Your task to perform on an android device: change the upload size in google photos Image 0: 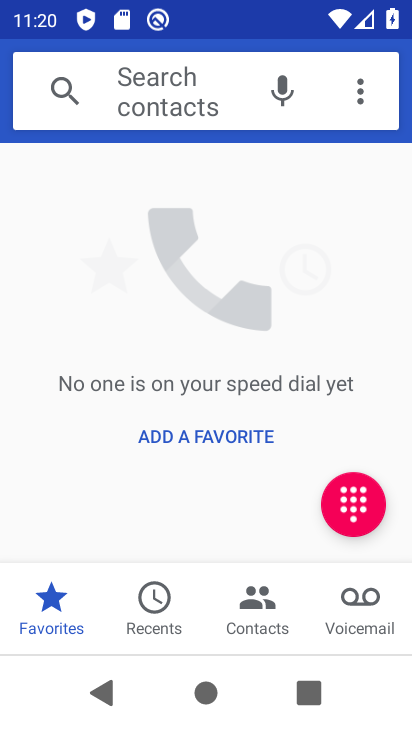
Step 0: press home button
Your task to perform on an android device: change the upload size in google photos Image 1: 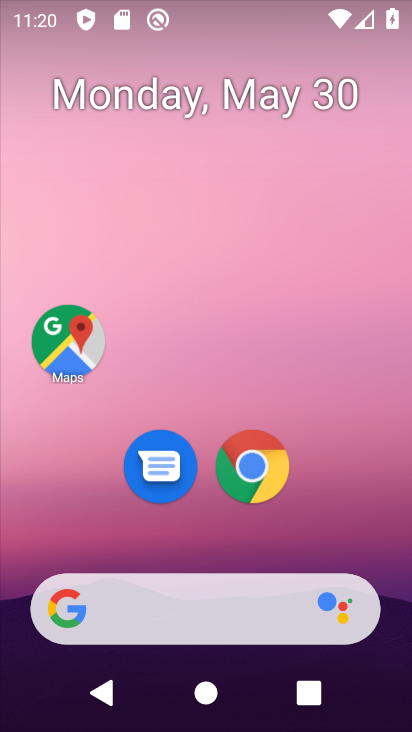
Step 1: drag from (222, 613) to (159, 149)
Your task to perform on an android device: change the upload size in google photos Image 2: 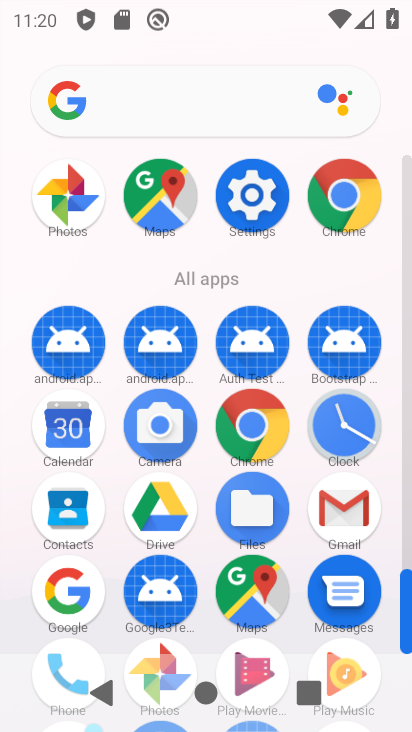
Step 2: click (160, 646)
Your task to perform on an android device: change the upload size in google photos Image 3: 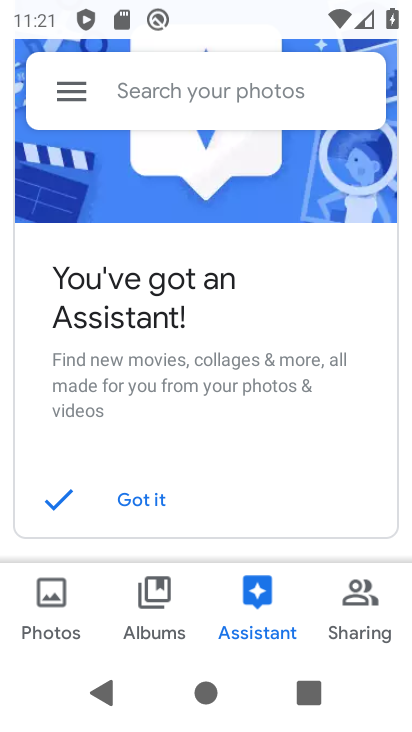
Step 3: click (62, 108)
Your task to perform on an android device: change the upload size in google photos Image 4: 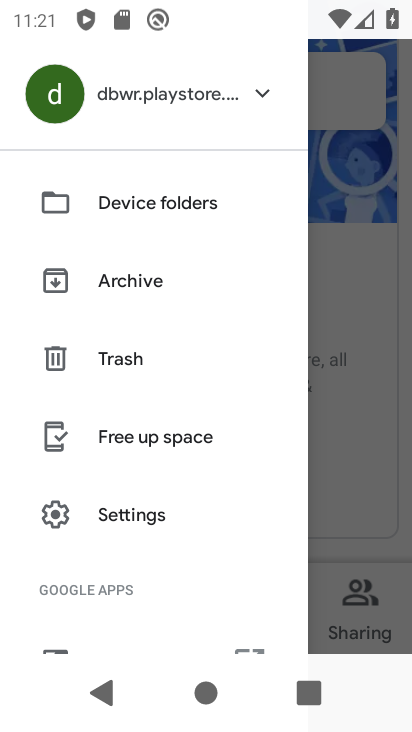
Step 4: click (105, 510)
Your task to perform on an android device: change the upload size in google photos Image 5: 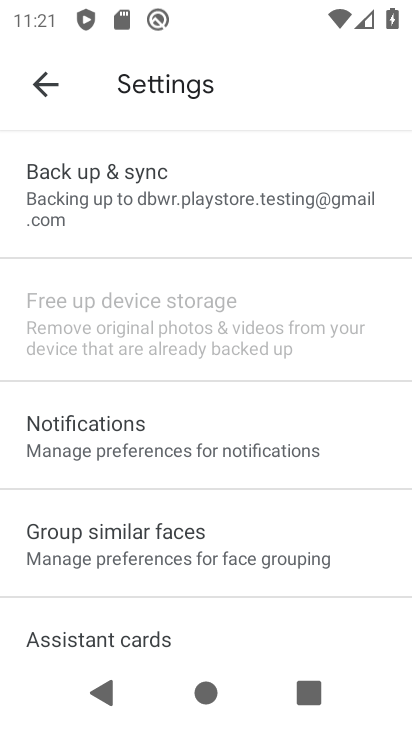
Step 5: click (167, 218)
Your task to perform on an android device: change the upload size in google photos Image 6: 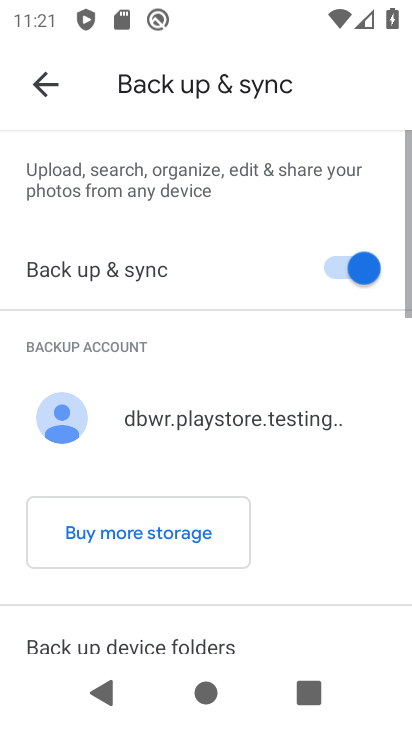
Step 6: drag from (276, 550) to (214, 36)
Your task to perform on an android device: change the upload size in google photos Image 7: 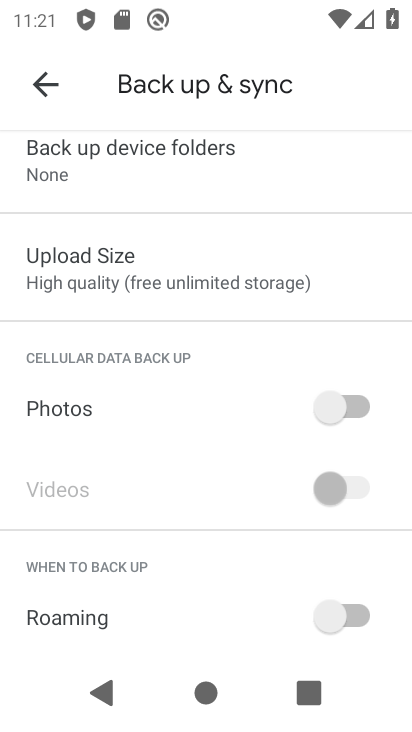
Step 7: click (167, 279)
Your task to perform on an android device: change the upload size in google photos Image 8: 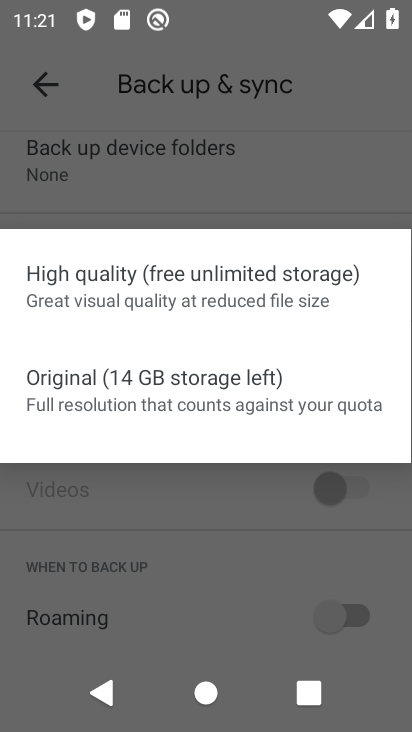
Step 8: click (157, 380)
Your task to perform on an android device: change the upload size in google photos Image 9: 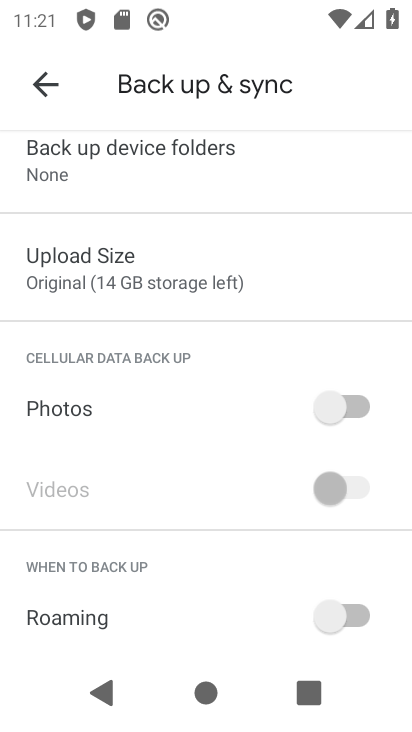
Step 9: task complete